Your task to perform on an android device: Go to internet settings Image 0: 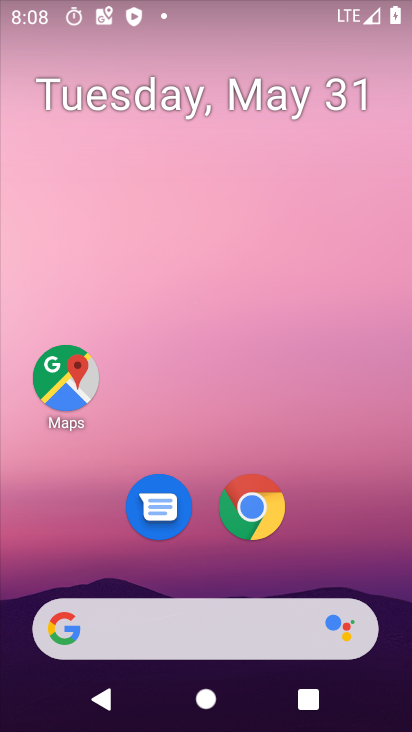
Step 0: press home button
Your task to perform on an android device: Go to internet settings Image 1: 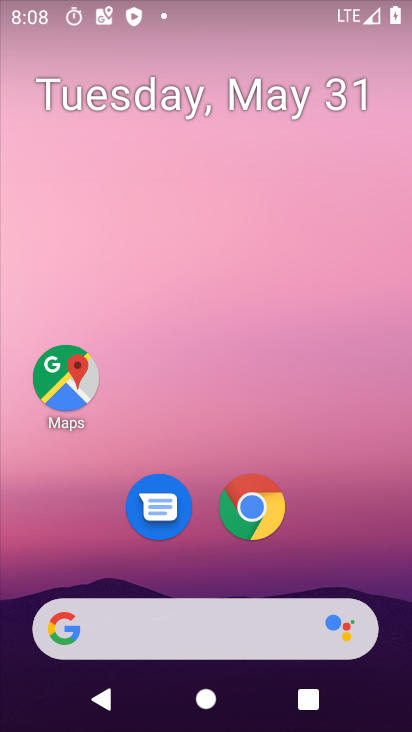
Step 1: drag from (50, 551) to (300, 91)
Your task to perform on an android device: Go to internet settings Image 2: 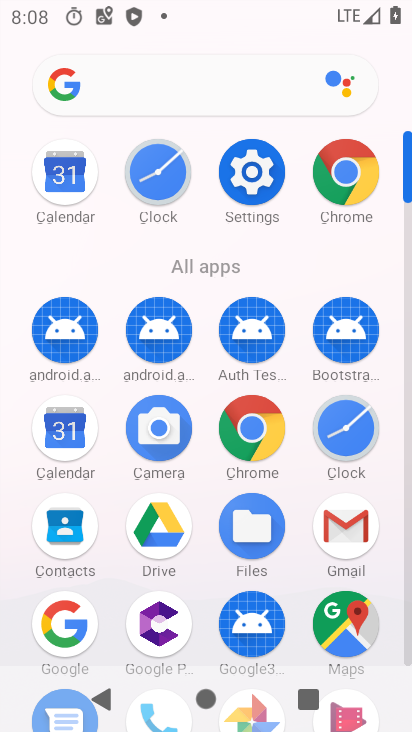
Step 2: click (244, 174)
Your task to perform on an android device: Go to internet settings Image 3: 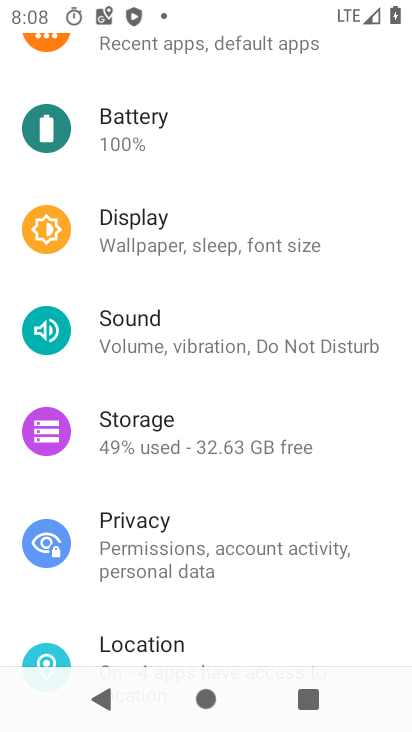
Step 3: drag from (263, 95) to (152, 596)
Your task to perform on an android device: Go to internet settings Image 4: 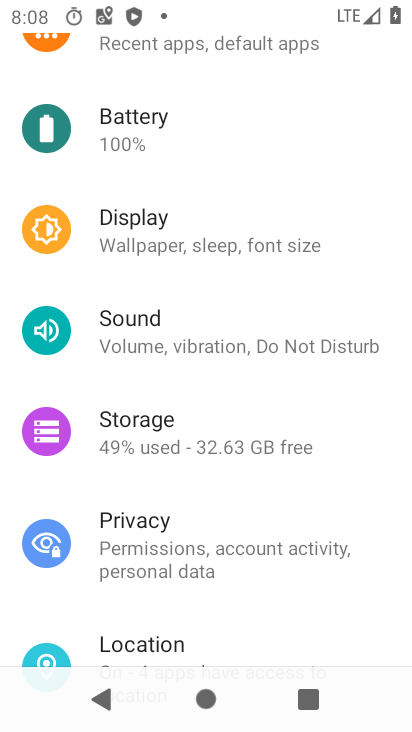
Step 4: drag from (206, 105) to (105, 546)
Your task to perform on an android device: Go to internet settings Image 5: 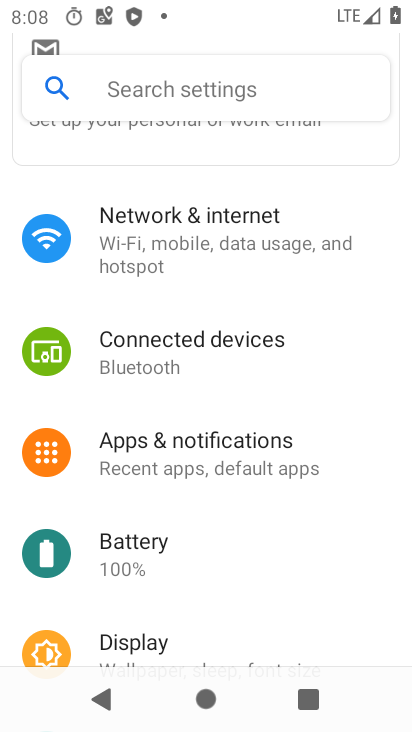
Step 5: click (180, 245)
Your task to perform on an android device: Go to internet settings Image 6: 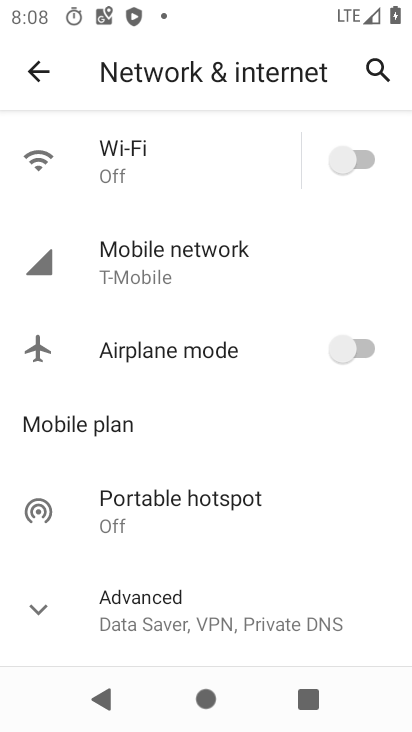
Step 6: click (179, 248)
Your task to perform on an android device: Go to internet settings Image 7: 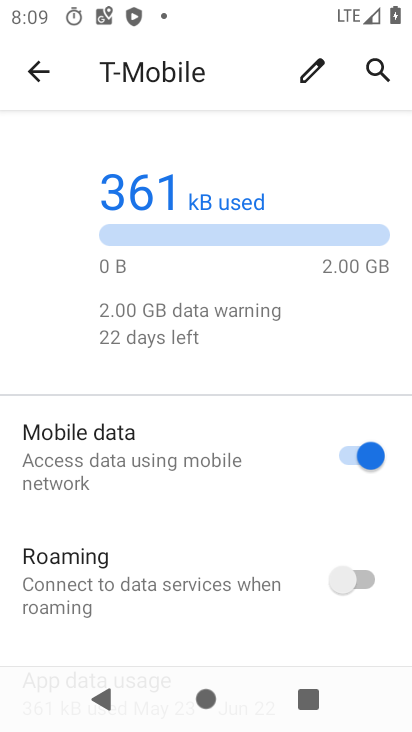
Step 7: task complete